Your task to perform on an android device: turn off location Image 0: 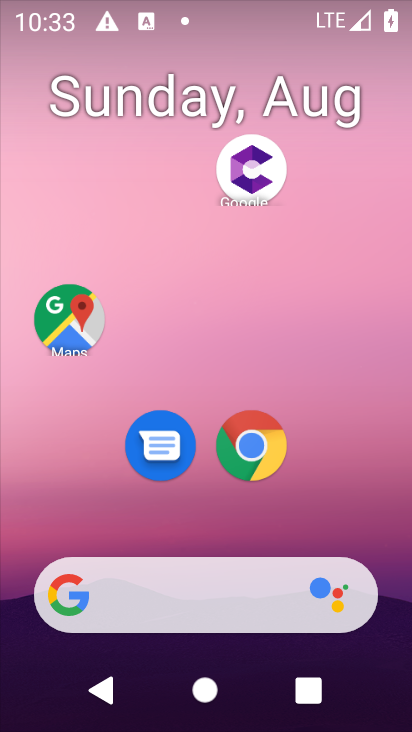
Step 0: press home button
Your task to perform on an android device: turn off location Image 1: 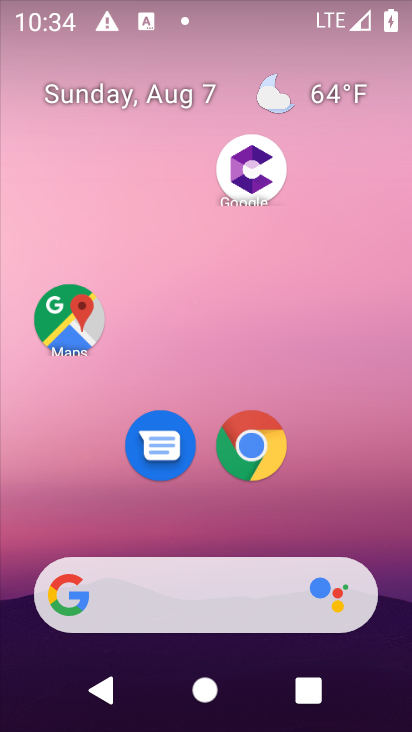
Step 1: drag from (201, 533) to (216, 59)
Your task to perform on an android device: turn off location Image 2: 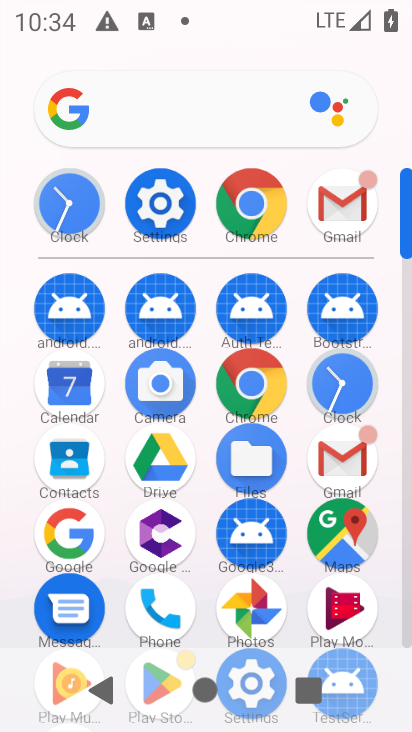
Step 2: click (161, 198)
Your task to perform on an android device: turn off location Image 3: 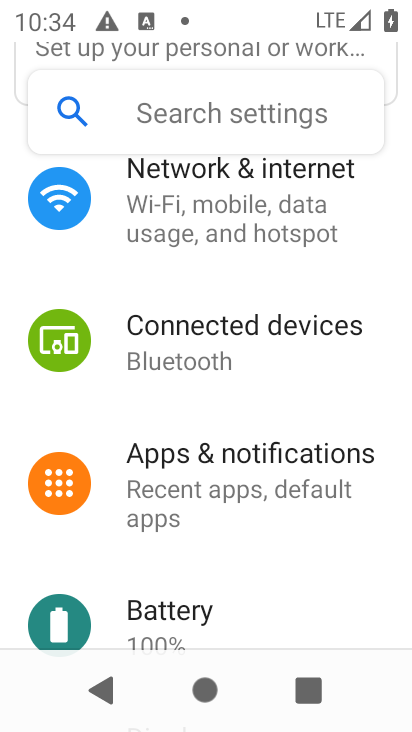
Step 3: drag from (272, 638) to (255, 122)
Your task to perform on an android device: turn off location Image 4: 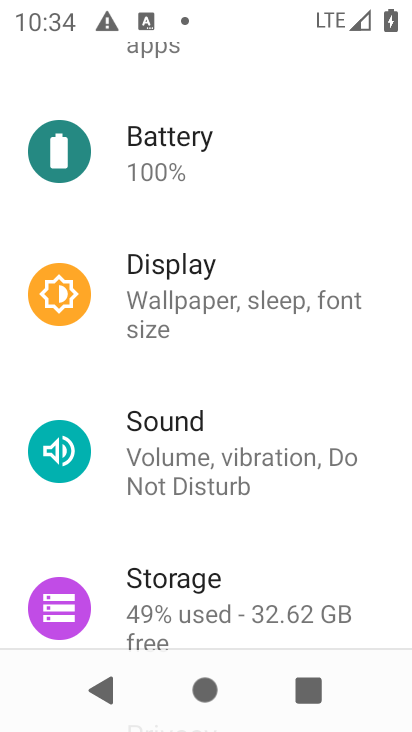
Step 4: drag from (244, 596) to (248, 142)
Your task to perform on an android device: turn off location Image 5: 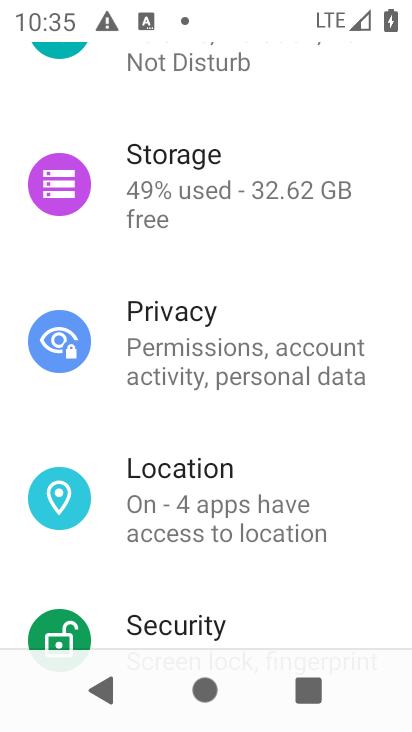
Step 5: click (223, 475)
Your task to perform on an android device: turn off location Image 6: 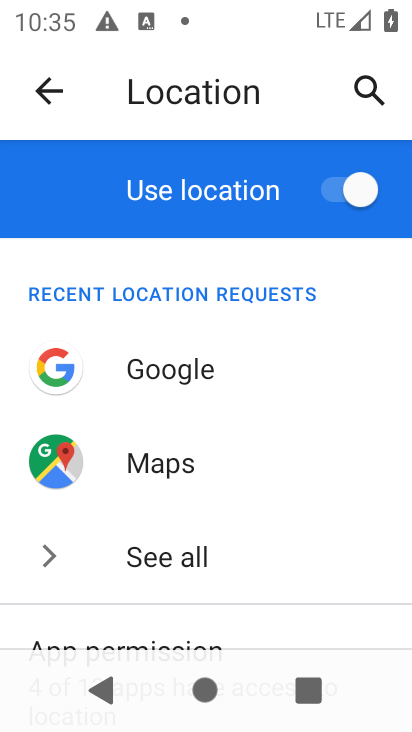
Step 6: click (346, 184)
Your task to perform on an android device: turn off location Image 7: 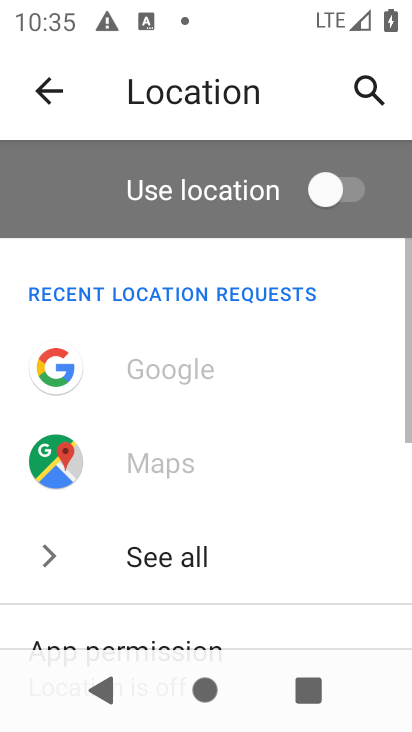
Step 7: task complete